Your task to perform on an android device: toggle wifi Image 0: 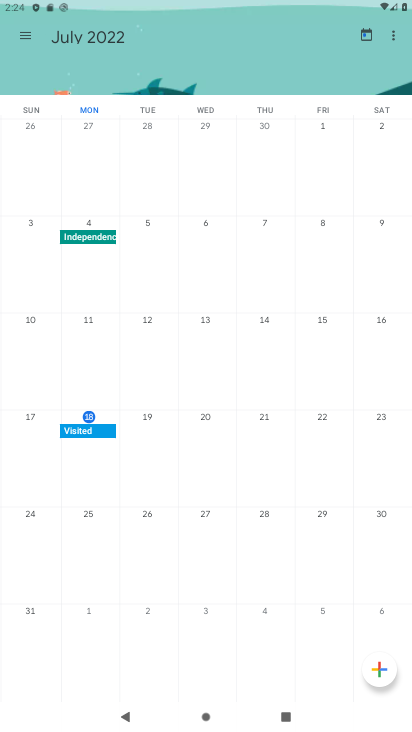
Step 0: press home button
Your task to perform on an android device: toggle wifi Image 1: 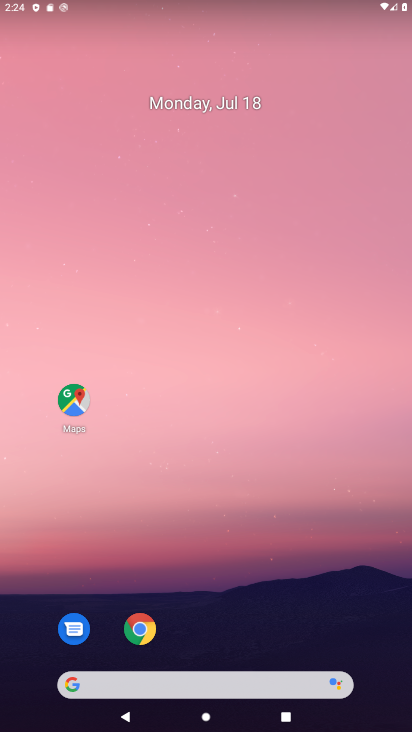
Step 1: drag from (163, 451) to (208, 252)
Your task to perform on an android device: toggle wifi Image 2: 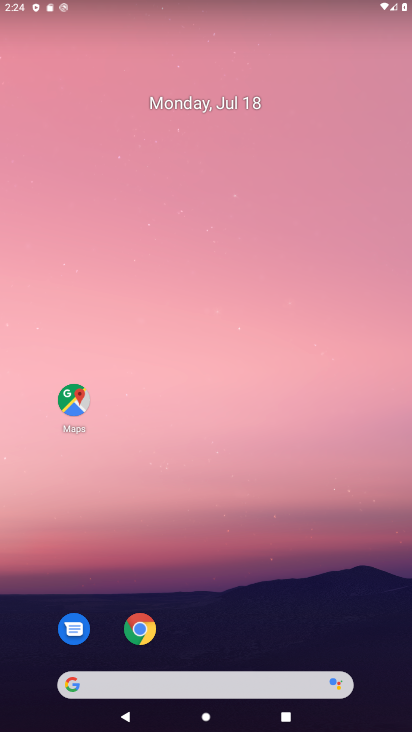
Step 2: drag from (227, 663) to (258, 245)
Your task to perform on an android device: toggle wifi Image 3: 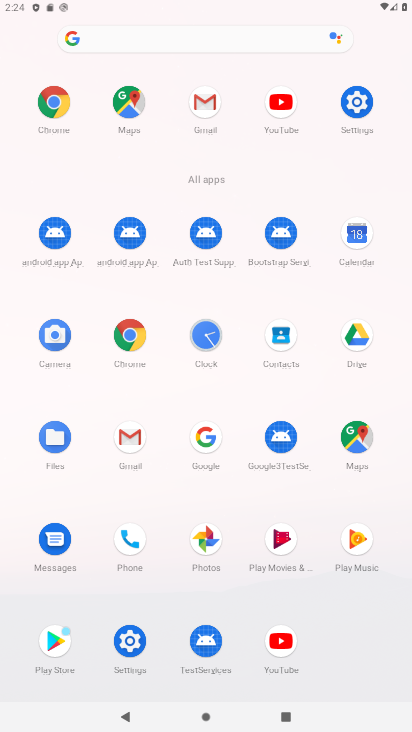
Step 3: click (355, 99)
Your task to perform on an android device: toggle wifi Image 4: 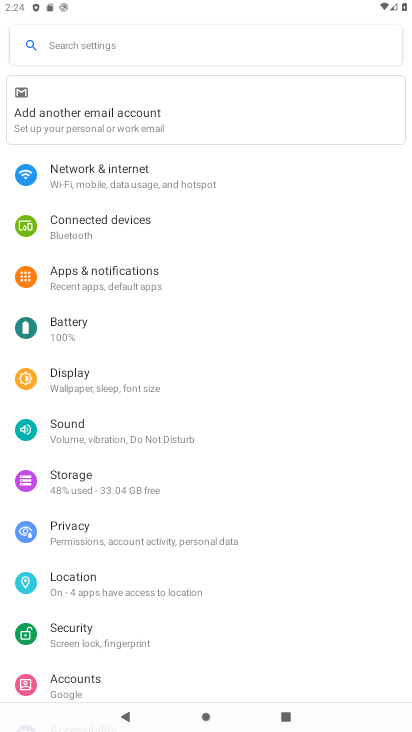
Step 4: click (75, 171)
Your task to perform on an android device: toggle wifi Image 5: 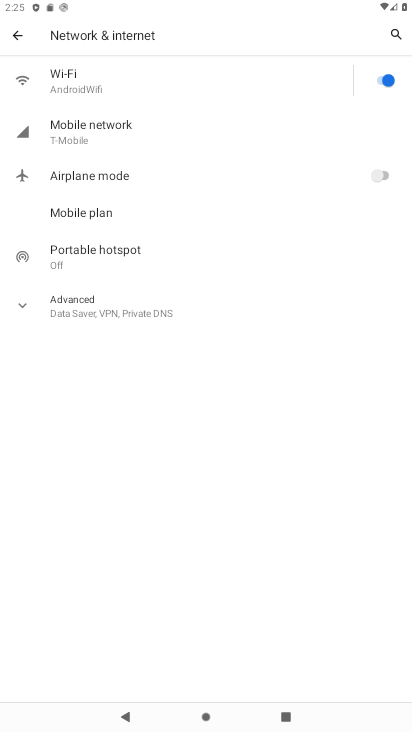
Step 5: click (375, 77)
Your task to perform on an android device: toggle wifi Image 6: 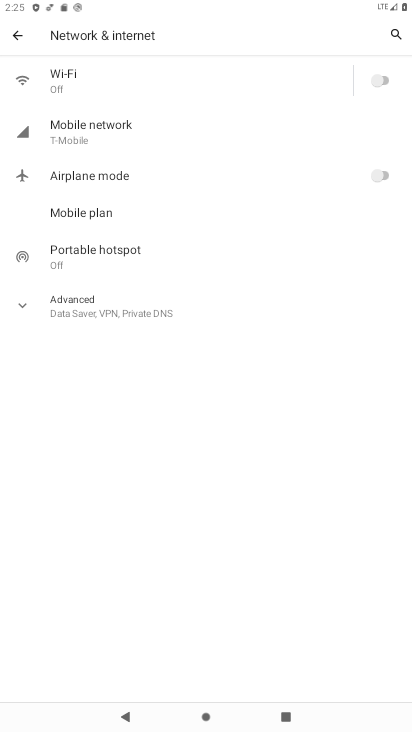
Step 6: task complete